Your task to perform on an android device: turn on translation in the chrome app Image 0: 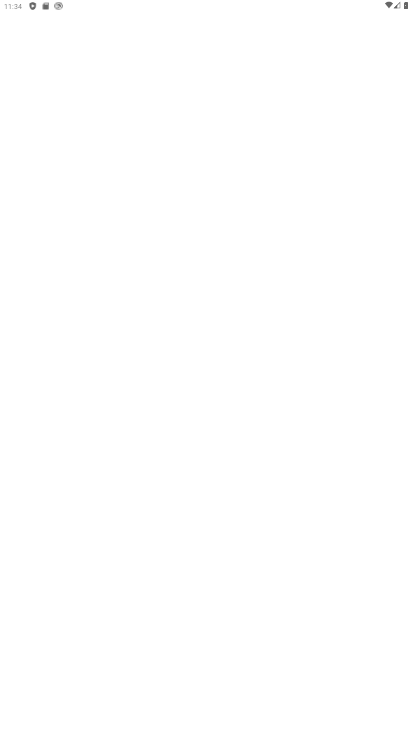
Step 0: drag from (184, 675) to (161, 9)
Your task to perform on an android device: turn on translation in the chrome app Image 1: 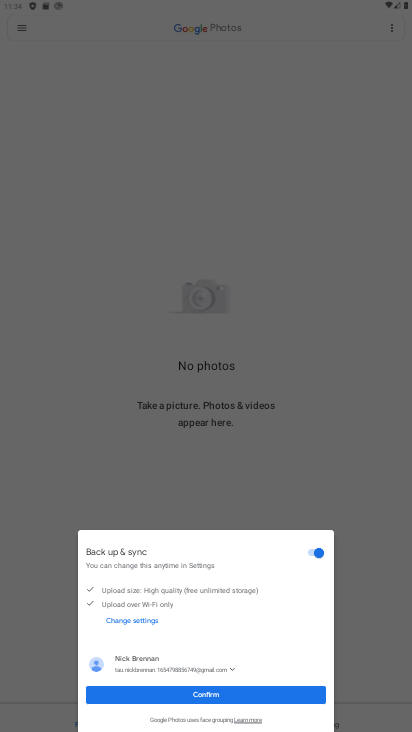
Step 1: drag from (275, 155) to (283, 30)
Your task to perform on an android device: turn on translation in the chrome app Image 2: 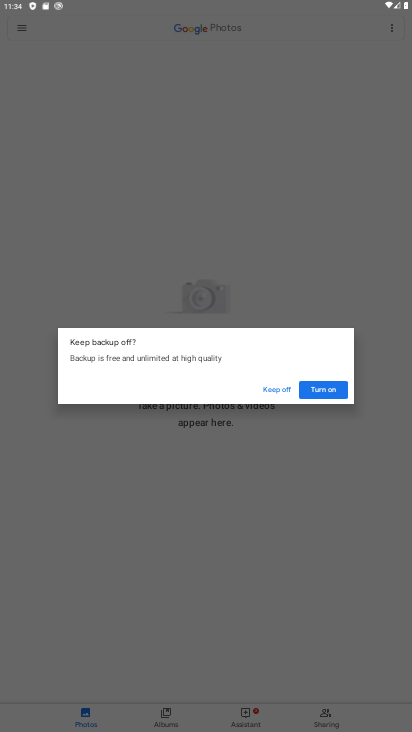
Step 2: press home button
Your task to perform on an android device: turn on translation in the chrome app Image 3: 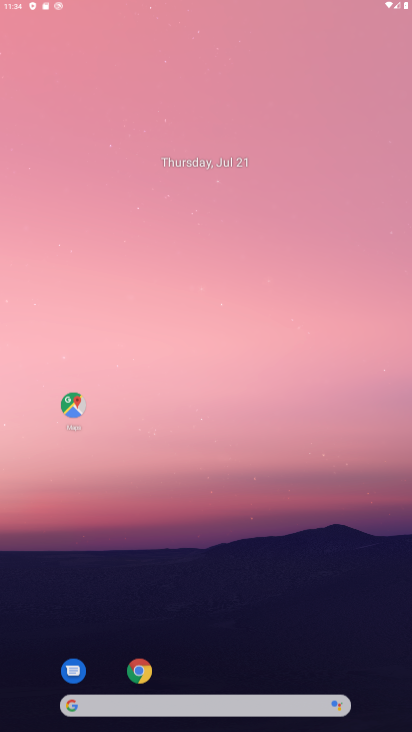
Step 3: drag from (183, 505) to (225, 83)
Your task to perform on an android device: turn on translation in the chrome app Image 4: 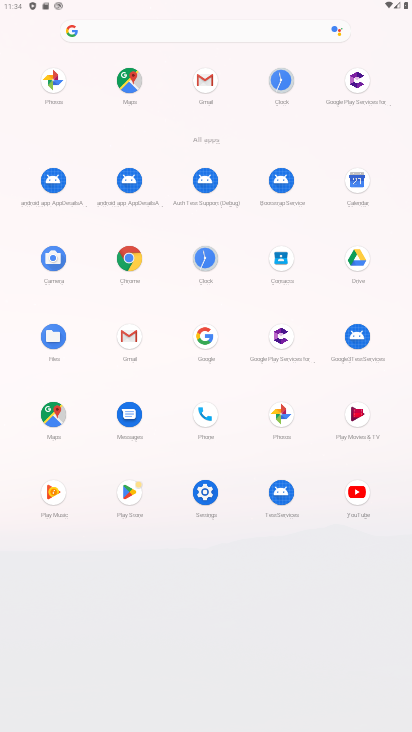
Step 4: click (132, 253)
Your task to perform on an android device: turn on translation in the chrome app Image 5: 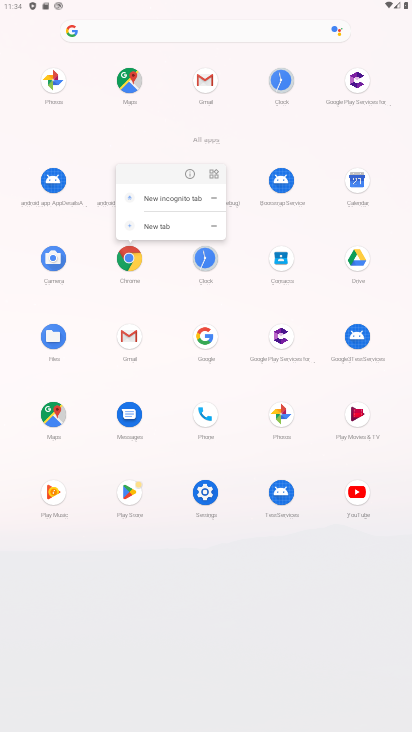
Step 5: click (188, 166)
Your task to perform on an android device: turn on translation in the chrome app Image 6: 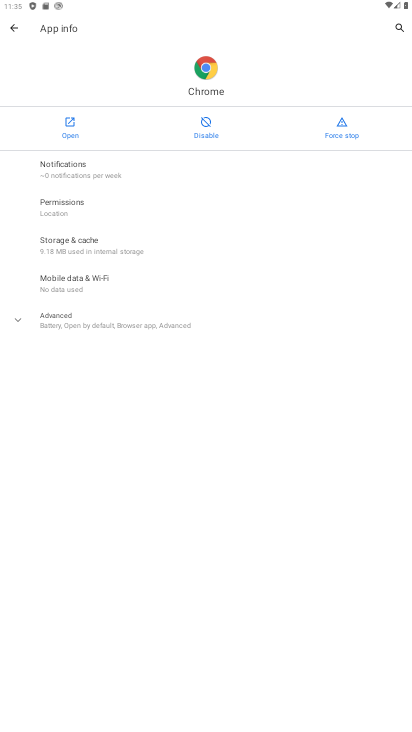
Step 6: click (74, 129)
Your task to perform on an android device: turn on translation in the chrome app Image 7: 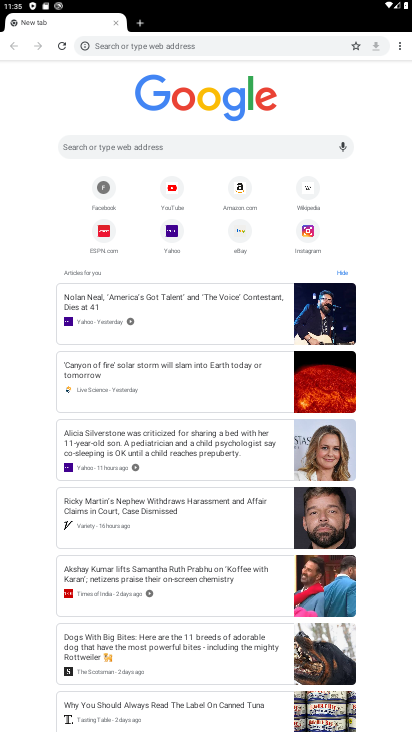
Step 7: drag from (400, 45) to (308, 208)
Your task to perform on an android device: turn on translation in the chrome app Image 8: 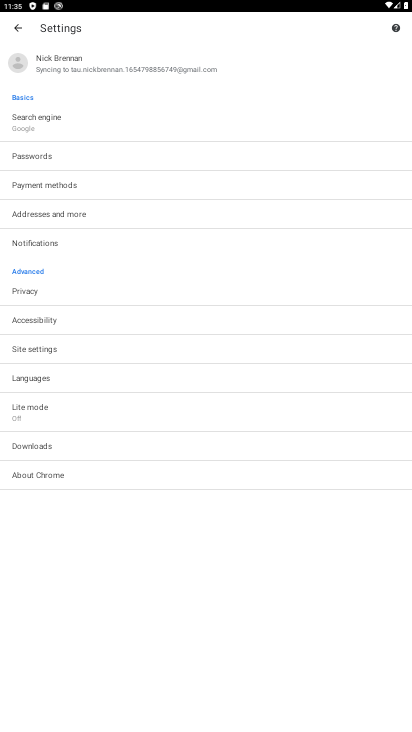
Step 8: click (42, 389)
Your task to perform on an android device: turn on translation in the chrome app Image 9: 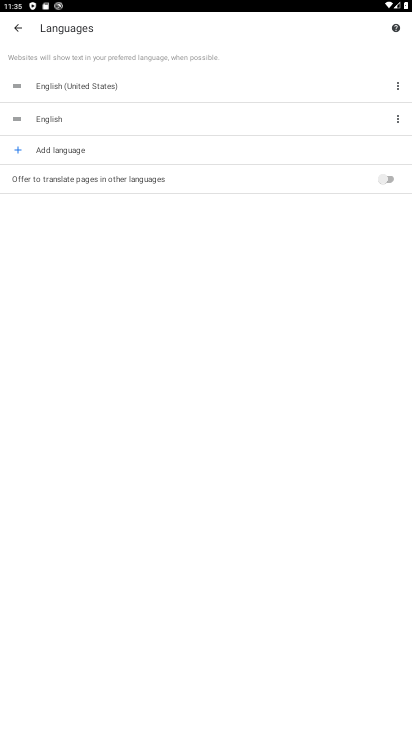
Step 9: click (349, 188)
Your task to perform on an android device: turn on translation in the chrome app Image 10: 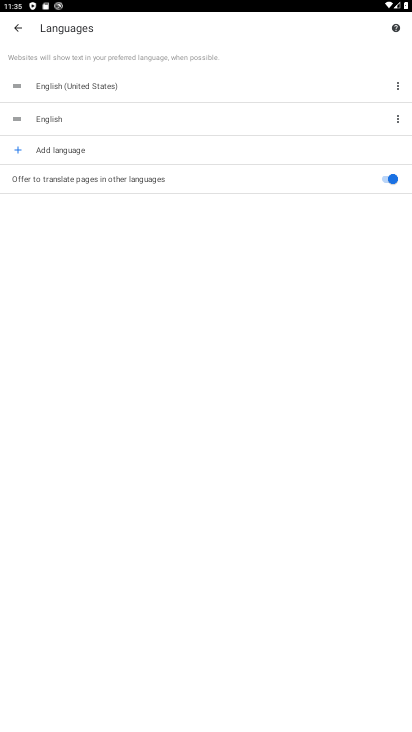
Step 10: task complete